Your task to perform on an android device: empty trash in the gmail app Image 0: 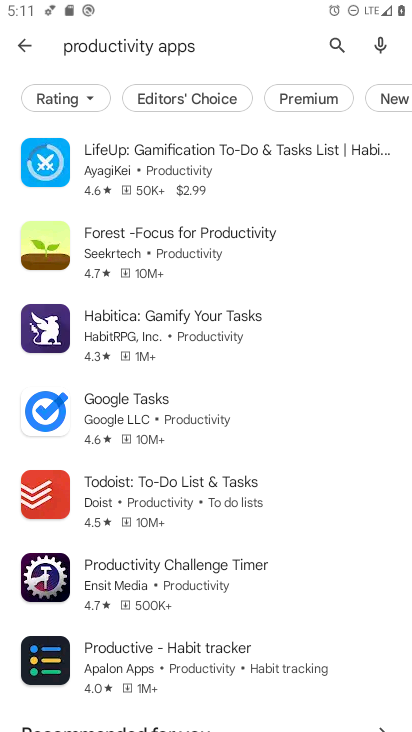
Step 0: press home button
Your task to perform on an android device: empty trash in the gmail app Image 1: 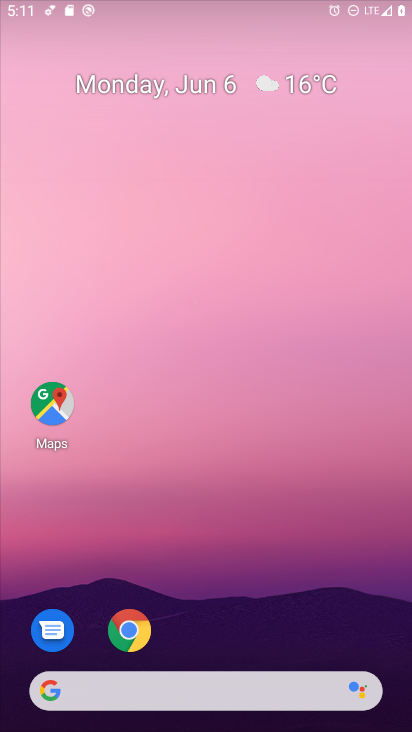
Step 1: drag from (320, 576) to (74, 71)
Your task to perform on an android device: empty trash in the gmail app Image 2: 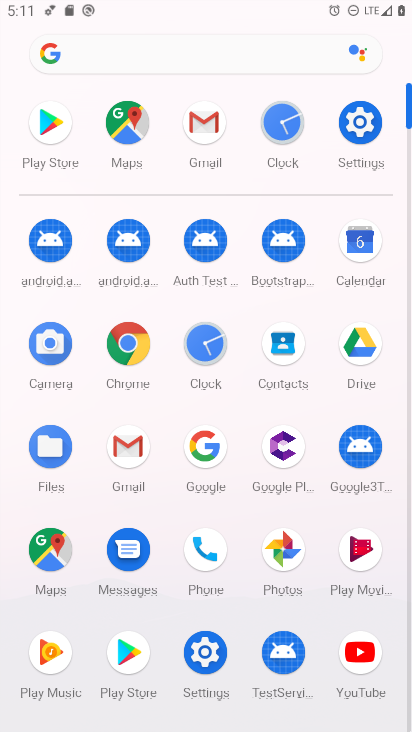
Step 2: click (209, 115)
Your task to perform on an android device: empty trash in the gmail app Image 3: 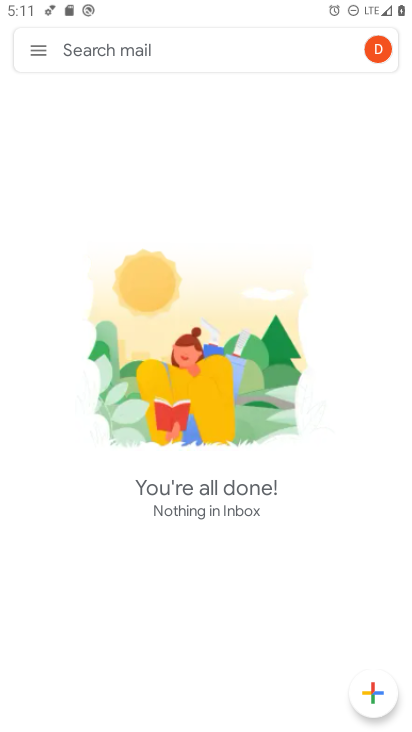
Step 3: click (36, 48)
Your task to perform on an android device: empty trash in the gmail app Image 4: 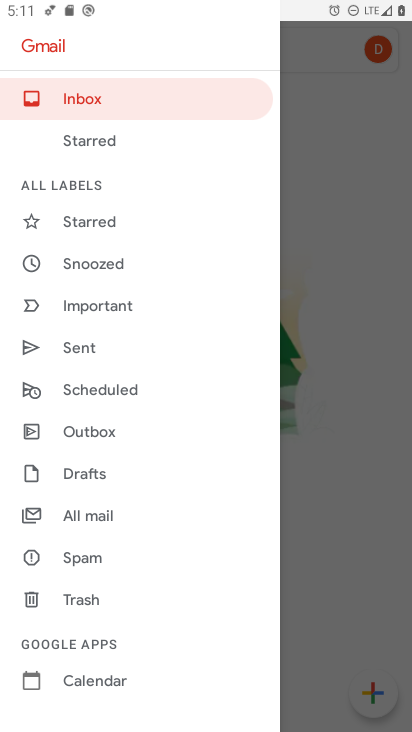
Step 4: click (117, 589)
Your task to perform on an android device: empty trash in the gmail app Image 5: 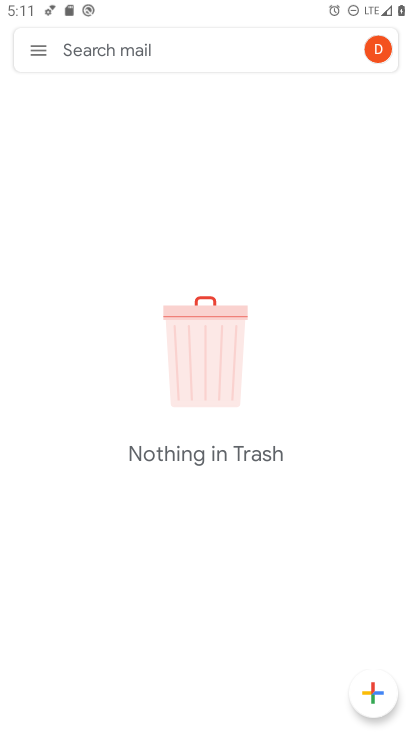
Step 5: task complete